Your task to perform on an android device: toggle data saver in the chrome app Image 0: 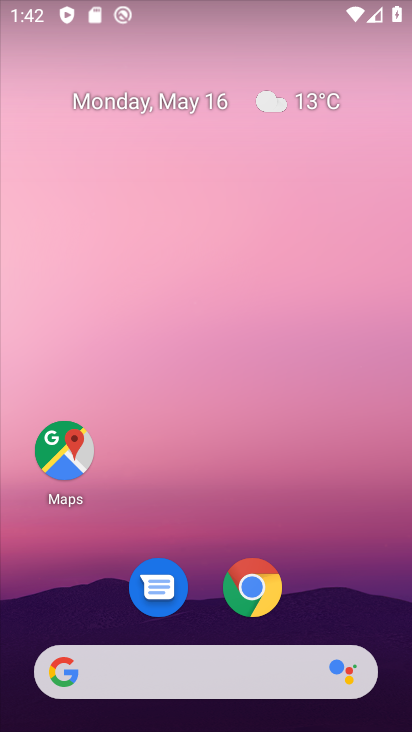
Step 0: click (268, 584)
Your task to perform on an android device: toggle data saver in the chrome app Image 1: 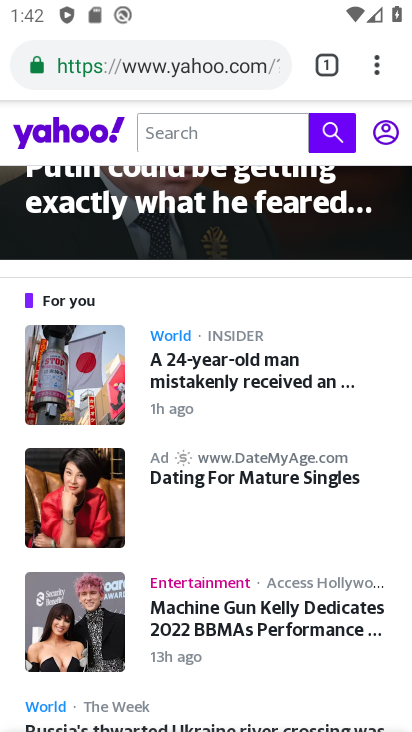
Step 1: click (379, 72)
Your task to perform on an android device: toggle data saver in the chrome app Image 2: 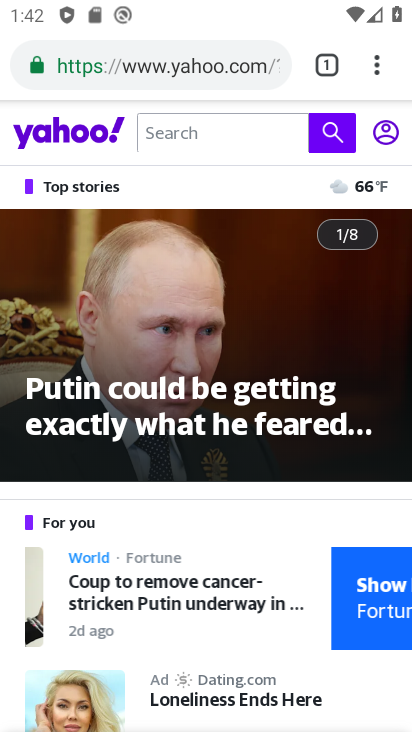
Step 2: click (372, 64)
Your task to perform on an android device: toggle data saver in the chrome app Image 3: 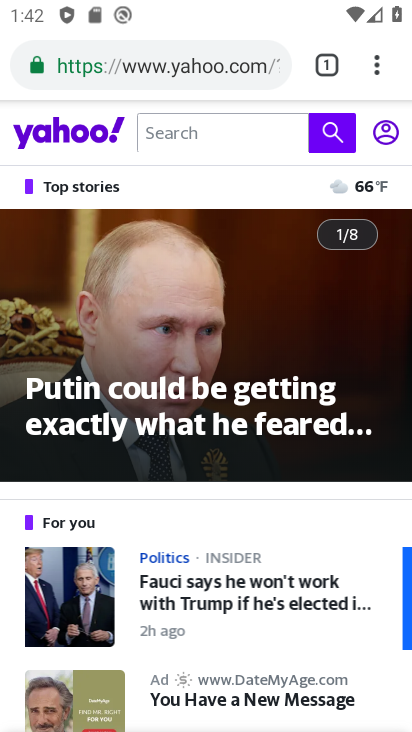
Step 3: click (372, 64)
Your task to perform on an android device: toggle data saver in the chrome app Image 4: 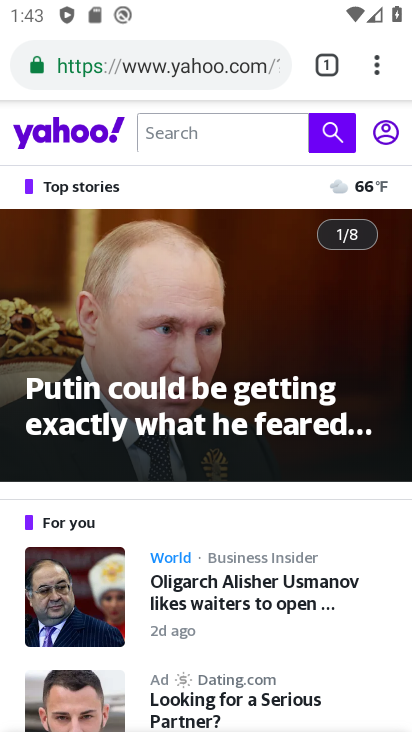
Step 4: click (375, 64)
Your task to perform on an android device: toggle data saver in the chrome app Image 5: 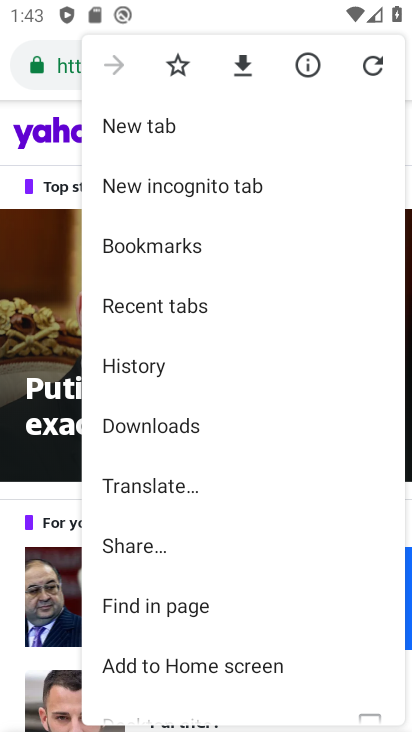
Step 5: drag from (158, 504) to (163, 310)
Your task to perform on an android device: toggle data saver in the chrome app Image 6: 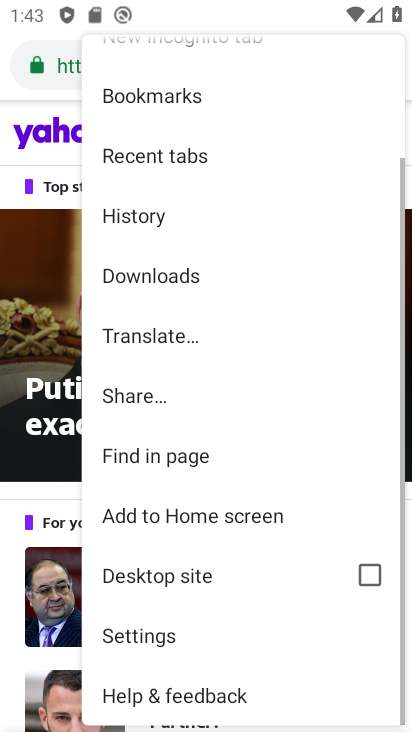
Step 6: click (130, 645)
Your task to perform on an android device: toggle data saver in the chrome app Image 7: 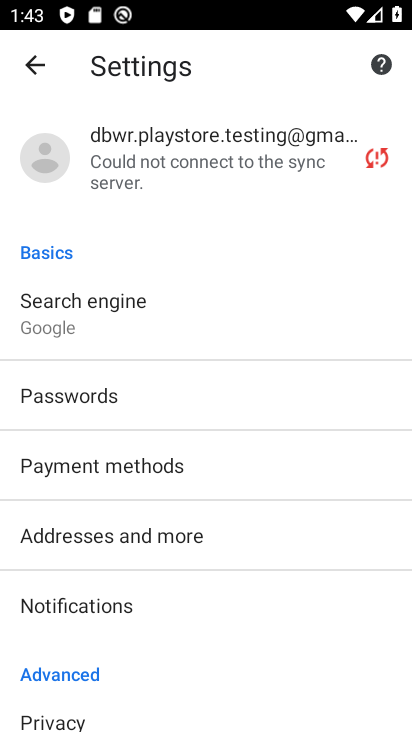
Step 7: drag from (99, 693) to (131, 337)
Your task to perform on an android device: toggle data saver in the chrome app Image 8: 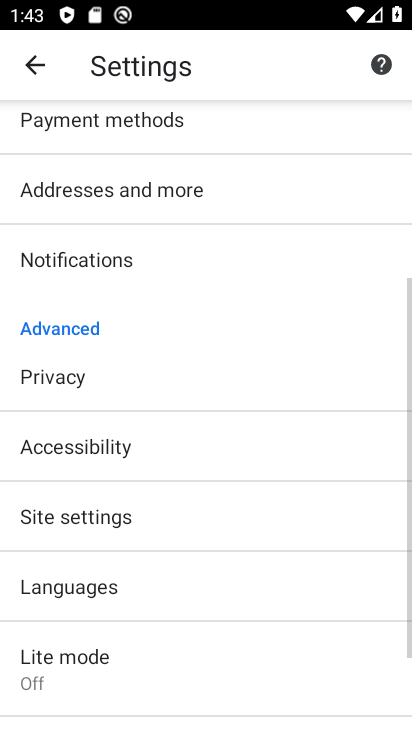
Step 8: click (53, 660)
Your task to perform on an android device: toggle data saver in the chrome app Image 9: 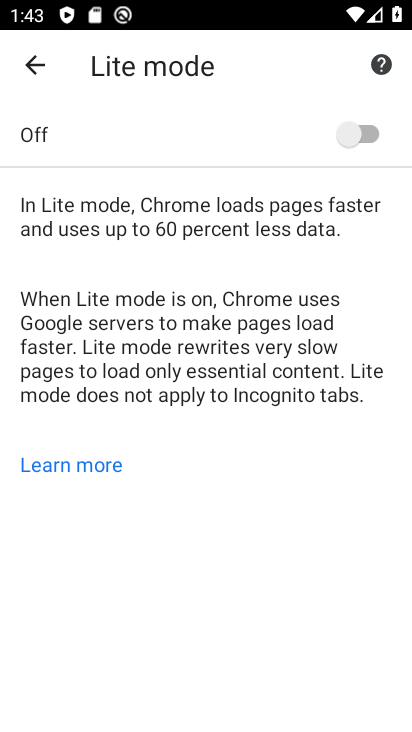
Step 9: click (360, 121)
Your task to perform on an android device: toggle data saver in the chrome app Image 10: 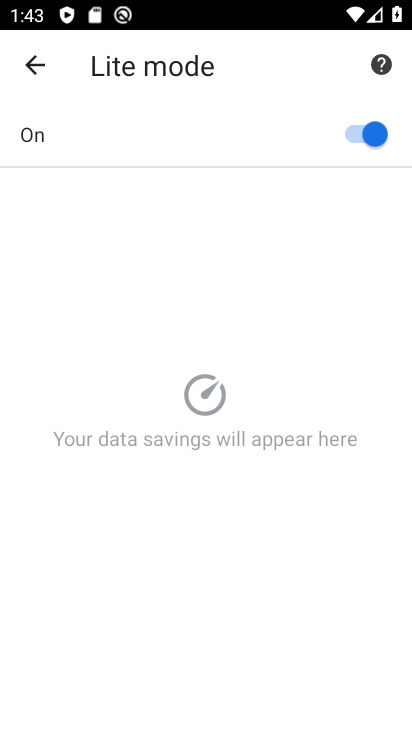
Step 10: task complete